Your task to perform on an android device: What's on my calendar tomorrow? Image 0: 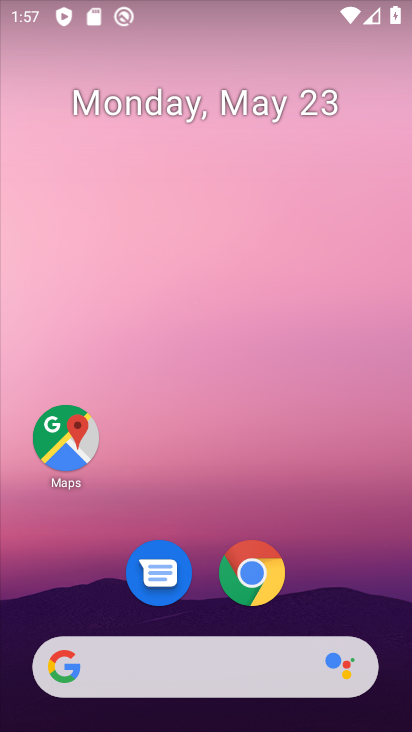
Step 0: drag from (353, 586) to (275, 211)
Your task to perform on an android device: What's on my calendar tomorrow? Image 1: 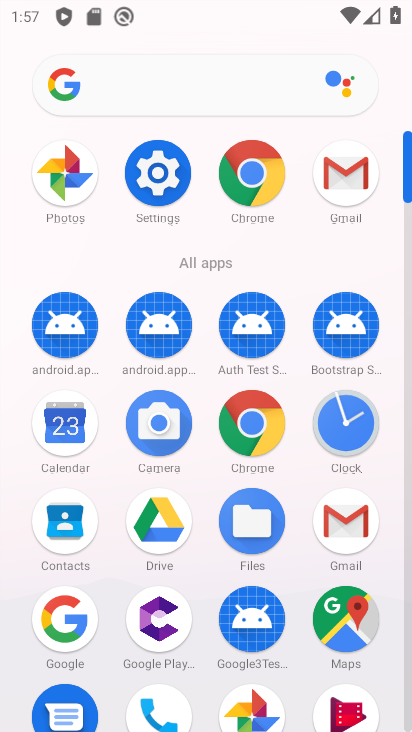
Step 1: click (71, 430)
Your task to perform on an android device: What's on my calendar tomorrow? Image 2: 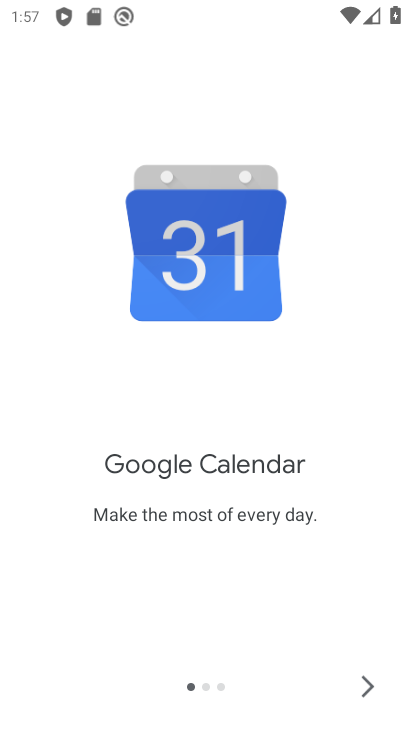
Step 2: click (362, 677)
Your task to perform on an android device: What's on my calendar tomorrow? Image 3: 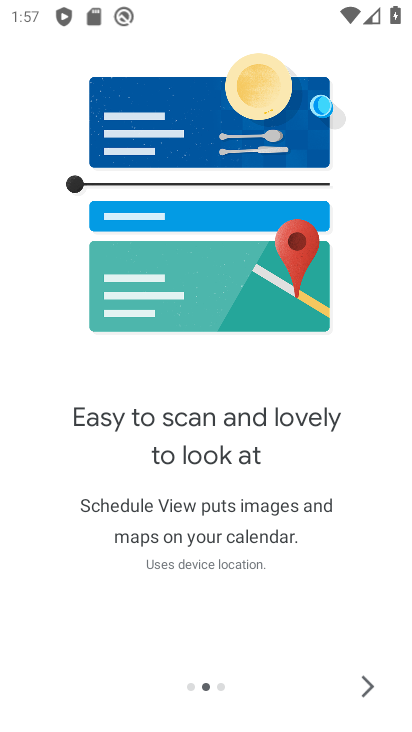
Step 3: click (362, 677)
Your task to perform on an android device: What's on my calendar tomorrow? Image 4: 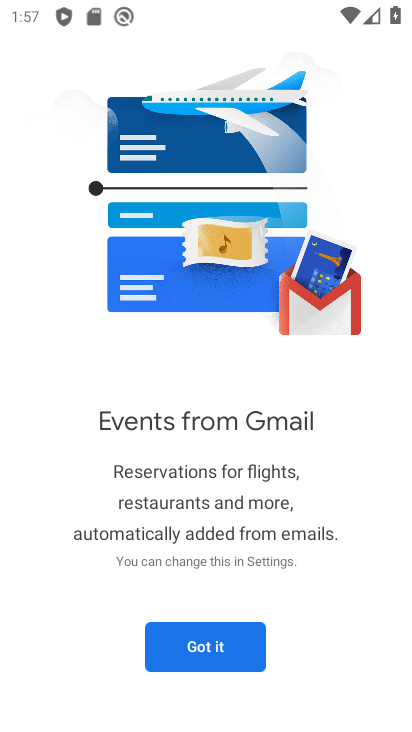
Step 4: click (217, 660)
Your task to perform on an android device: What's on my calendar tomorrow? Image 5: 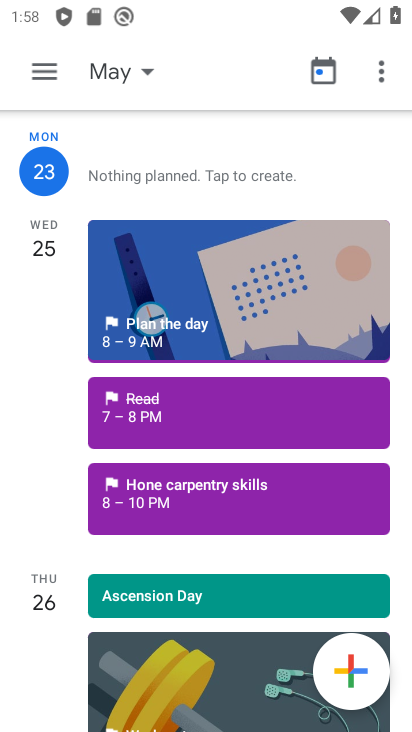
Step 5: click (107, 64)
Your task to perform on an android device: What's on my calendar tomorrow? Image 6: 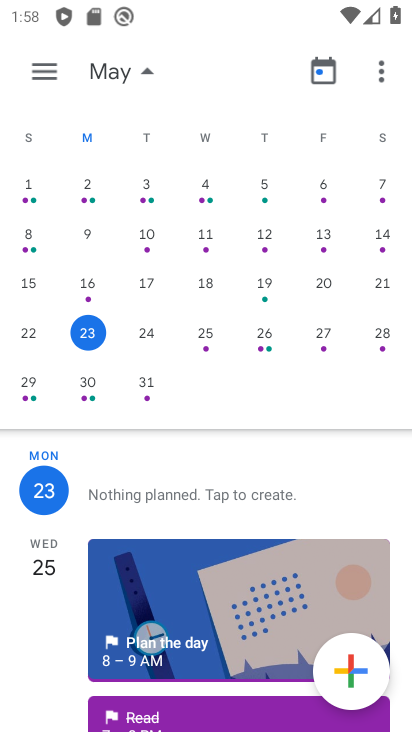
Step 6: click (131, 328)
Your task to perform on an android device: What's on my calendar tomorrow? Image 7: 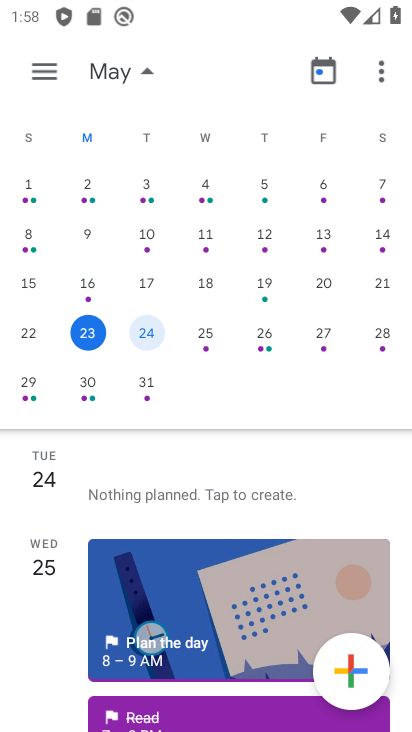
Step 7: task complete